Your task to perform on an android device: check google app version Image 0: 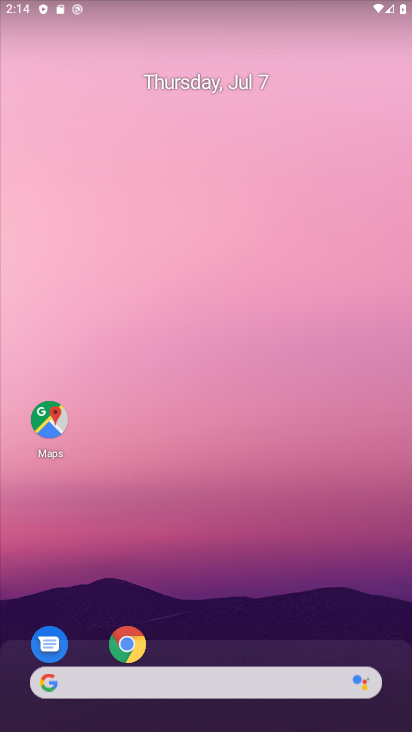
Step 0: drag from (231, 666) to (310, 192)
Your task to perform on an android device: check google app version Image 1: 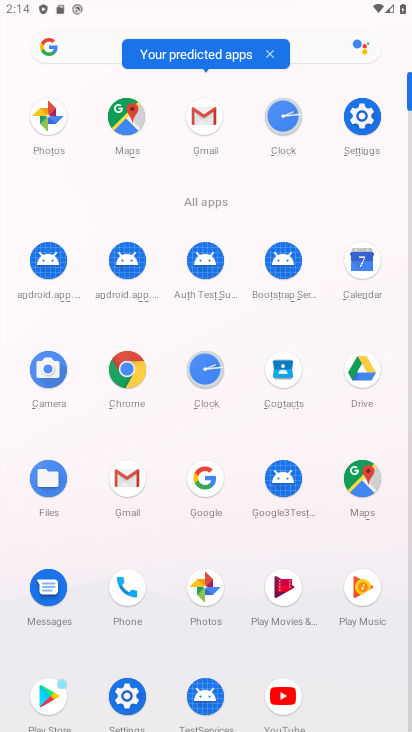
Step 1: drag from (202, 475) to (259, 434)
Your task to perform on an android device: check google app version Image 2: 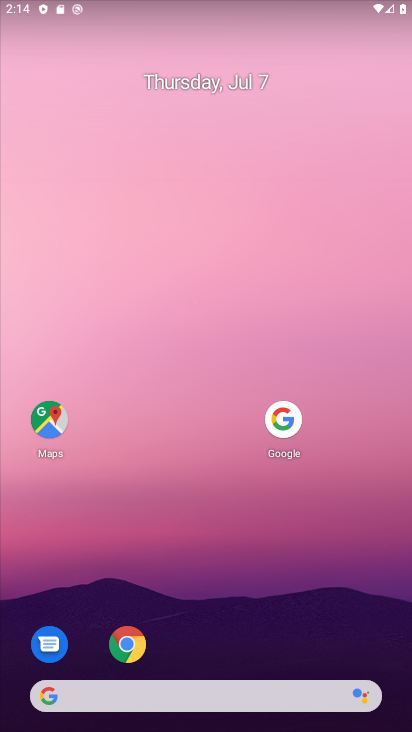
Step 2: drag from (282, 415) to (231, 255)
Your task to perform on an android device: check google app version Image 3: 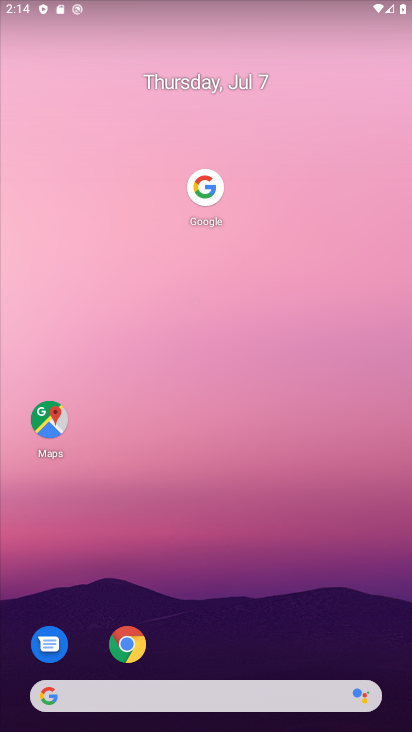
Step 3: click (247, 206)
Your task to perform on an android device: check google app version Image 4: 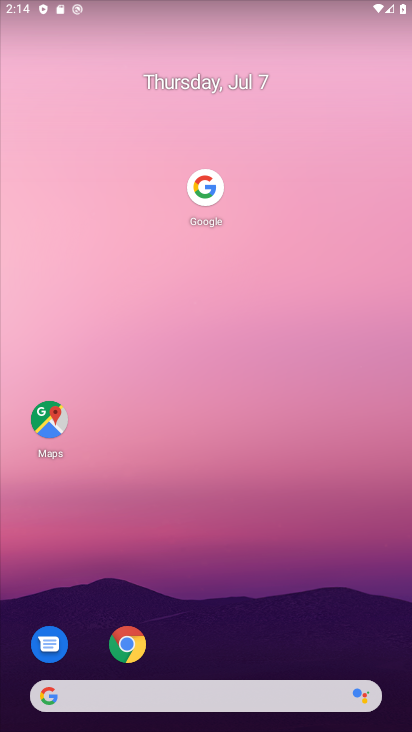
Step 4: click (210, 186)
Your task to perform on an android device: check google app version Image 5: 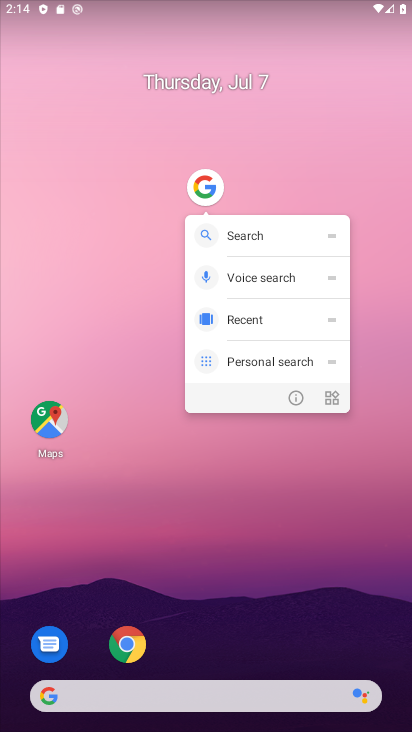
Step 5: click (292, 402)
Your task to perform on an android device: check google app version Image 6: 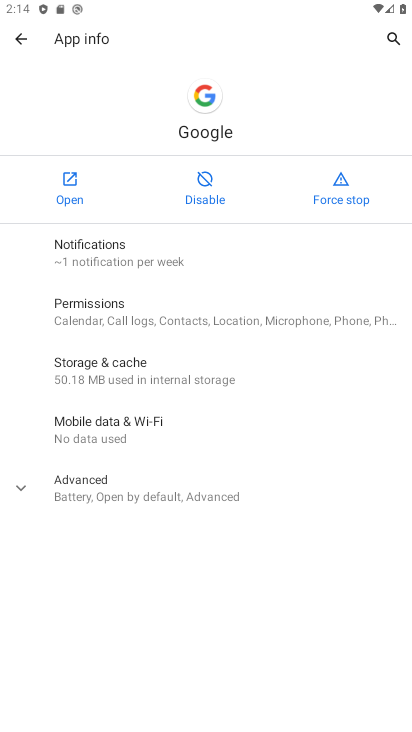
Step 6: click (104, 492)
Your task to perform on an android device: check google app version Image 7: 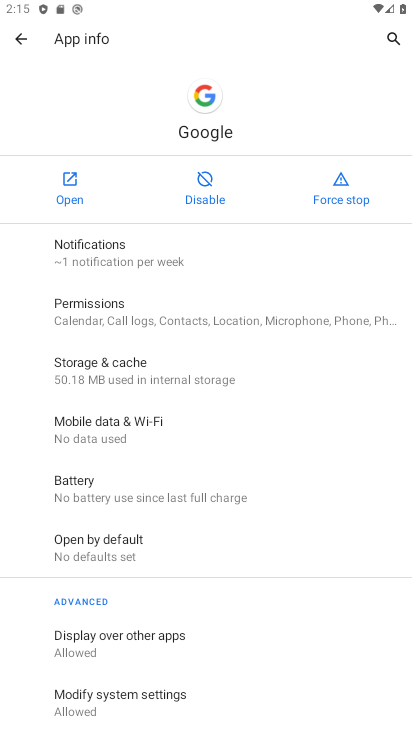
Step 7: task complete